Your task to perform on an android device: Go to calendar. Show me events next week Image 0: 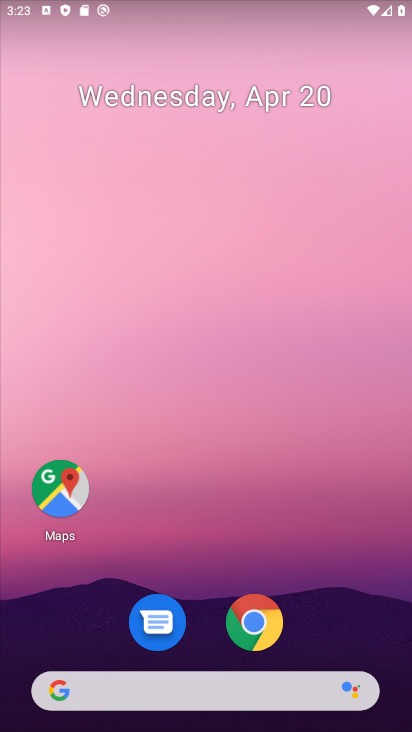
Step 0: drag from (243, 465) to (324, 204)
Your task to perform on an android device: Go to calendar. Show me events next week Image 1: 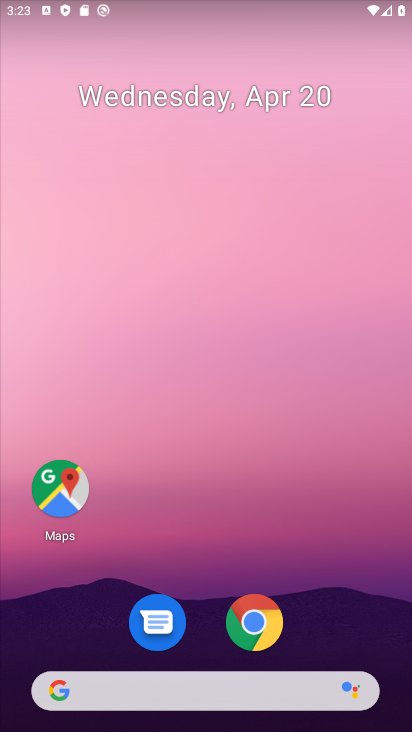
Step 1: drag from (218, 725) to (271, 86)
Your task to perform on an android device: Go to calendar. Show me events next week Image 2: 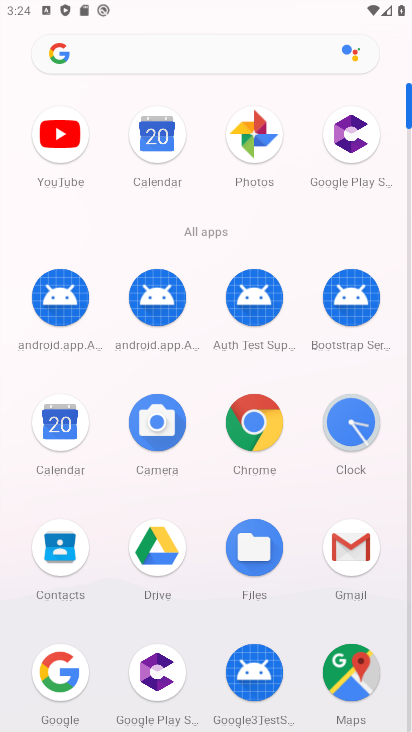
Step 2: click (60, 448)
Your task to perform on an android device: Go to calendar. Show me events next week Image 3: 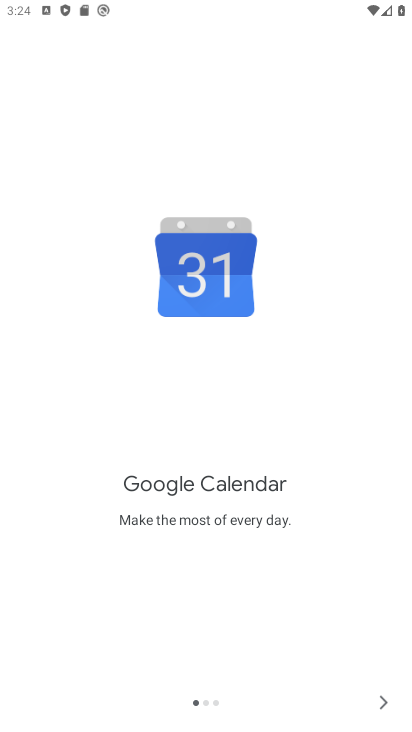
Step 3: click (366, 701)
Your task to perform on an android device: Go to calendar. Show me events next week Image 4: 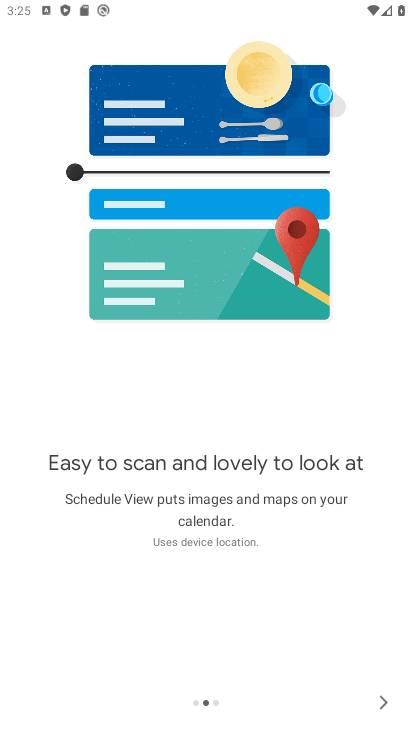
Step 4: click (376, 702)
Your task to perform on an android device: Go to calendar. Show me events next week Image 5: 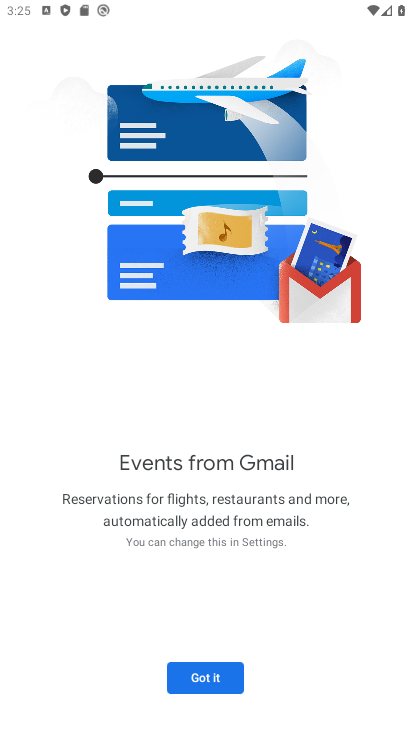
Step 5: click (218, 670)
Your task to perform on an android device: Go to calendar. Show me events next week Image 6: 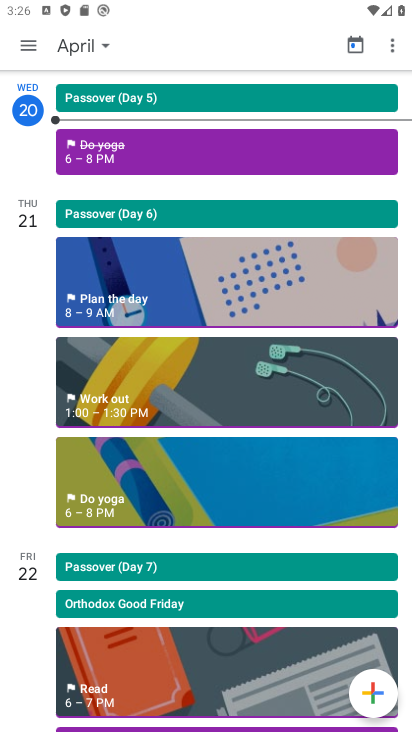
Step 6: task complete